Your task to perform on an android device: turn on the 12-hour format for clock Image 0: 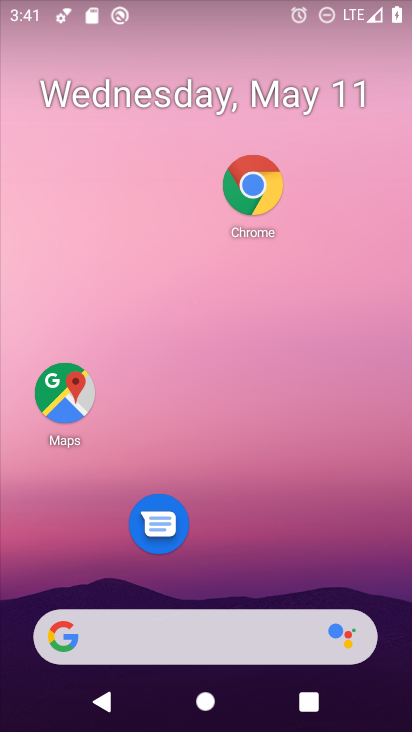
Step 0: drag from (289, 541) to (216, 50)
Your task to perform on an android device: turn on the 12-hour format for clock Image 1: 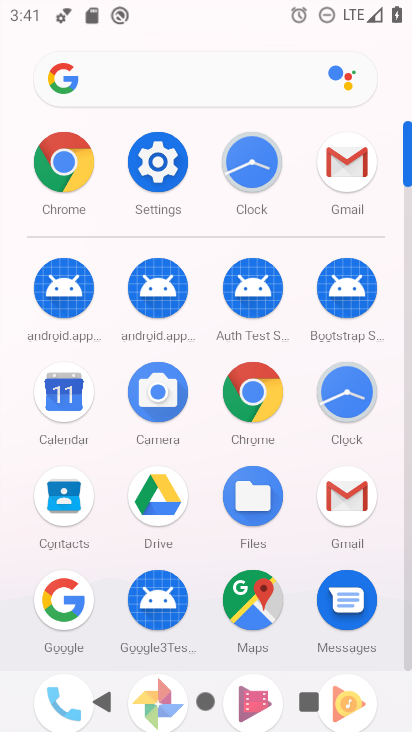
Step 1: click (244, 163)
Your task to perform on an android device: turn on the 12-hour format for clock Image 2: 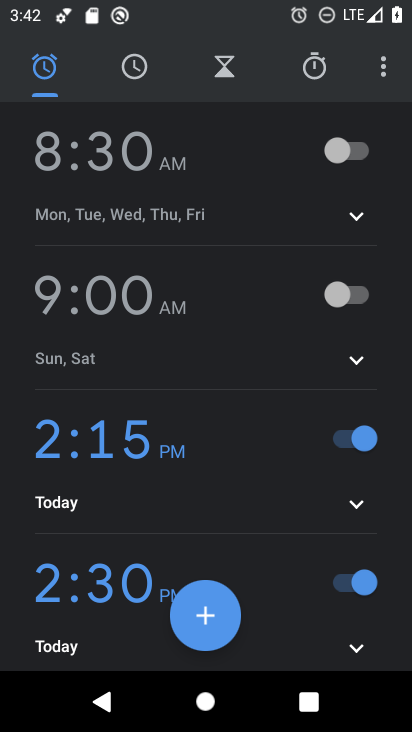
Step 2: click (379, 66)
Your task to perform on an android device: turn on the 12-hour format for clock Image 3: 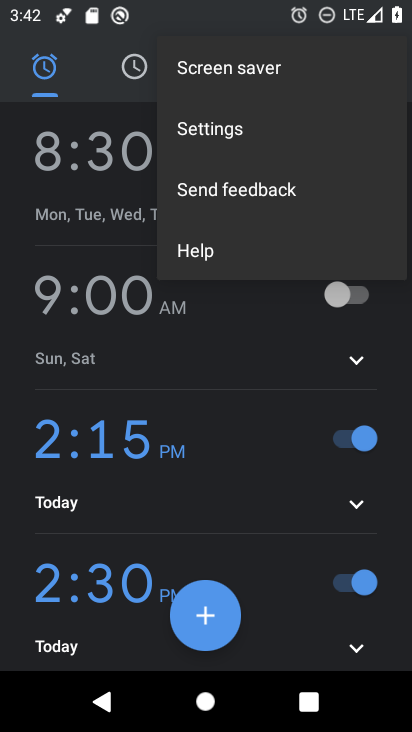
Step 3: click (281, 131)
Your task to perform on an android device: turn on the 12-hour format for clock Image 4: 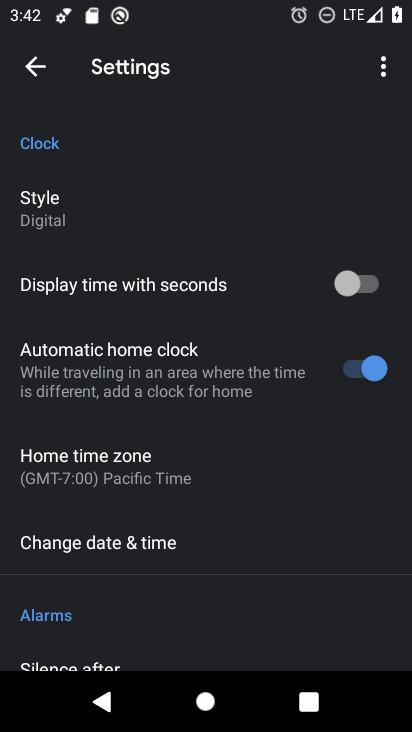
Step 4: drag from (240, 442) to (231, 192)
Your task to perform on an android device: turn on the 12-hour format for clock Image 5: 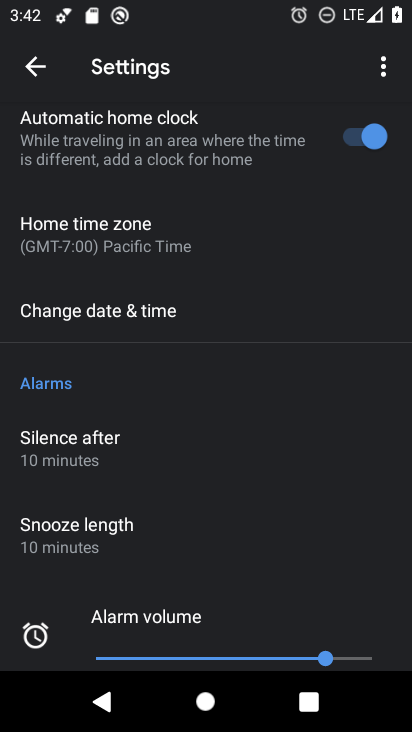
Step 5: click (234, 316)
Your task to perform on an android device: turn on the 12-hour format for clock Image 6: 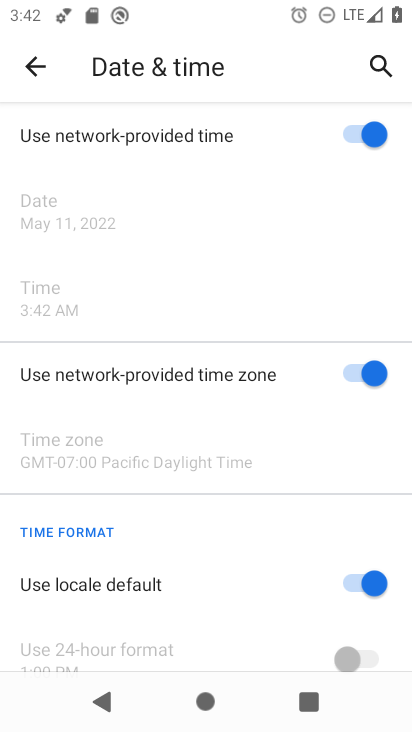
Step 6: task complete